Your task to perform on an android device: all mails in gmail Image 0: 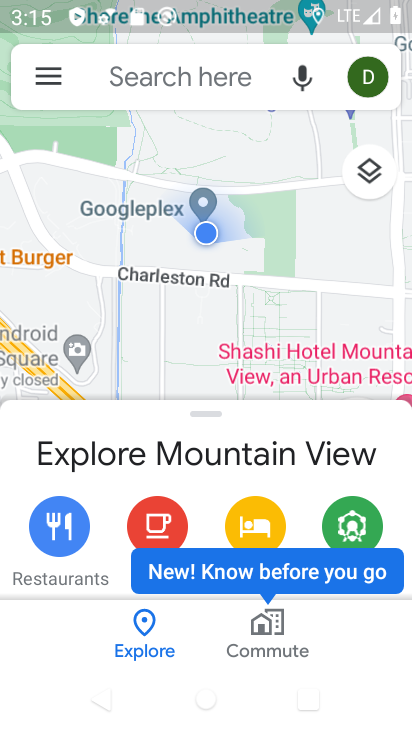
Step 0: press home button
Your task to perform on an android device: all mails in gmail Image 1: 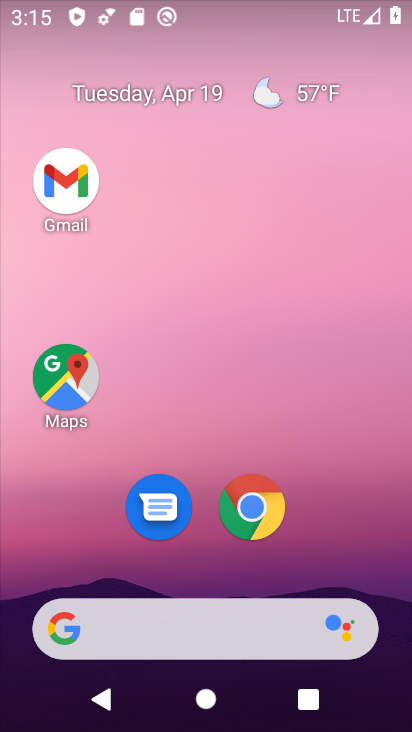
Step 1: click (239, 588)
Your task to perform on an android device: all mails in gmail Image 2: 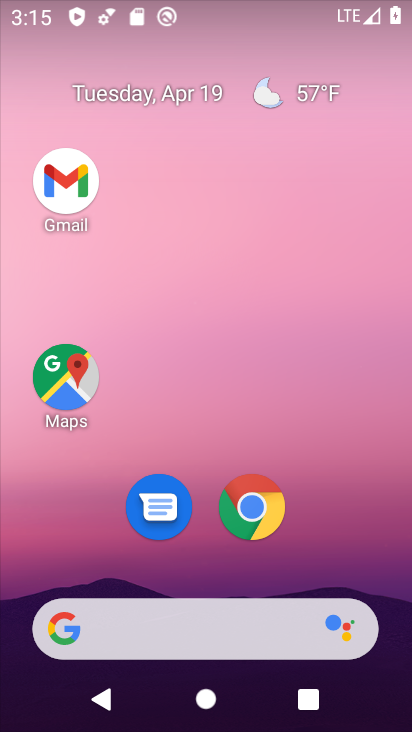
Step 2: click (75, 184)
Your task to perform on an android device: all mails in gmail Image 3: 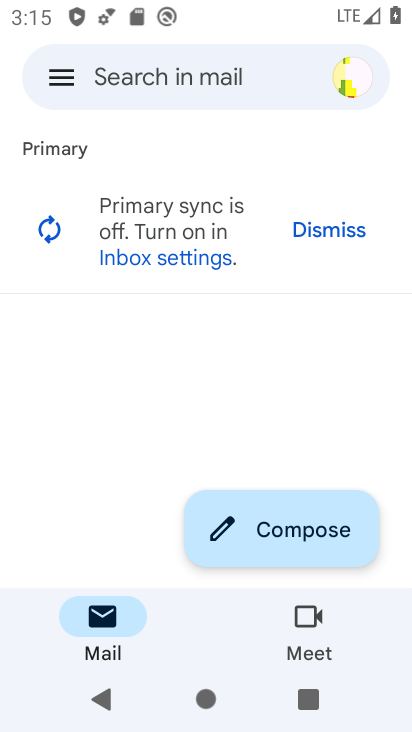
Step 3: click (47, 82)
Your task to perform on an android device: all mails in gmail Image 4: 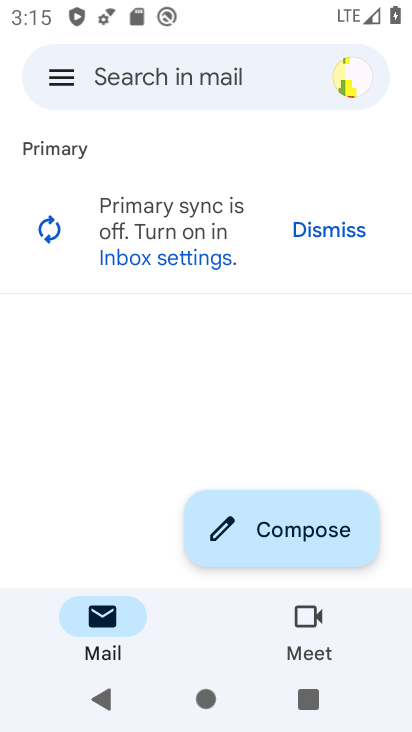
Step 4: click (73, 78)
Your task to perform on an android device: all mails in gmail Image 5: 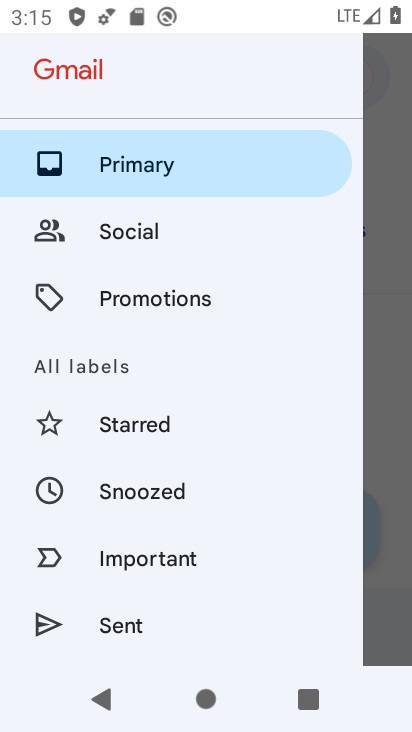
Step 5: drag from (195, 584) to (258, 203)
Your task to perform on an android device: all mails in gmail Image 6: 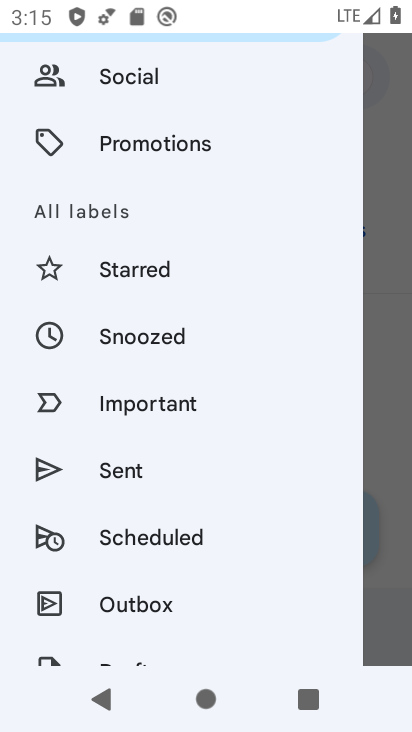
Step 6: drag from (255, 566) to (294, 188)
Your task to perform on an android device: all mails in gmail Image 7: 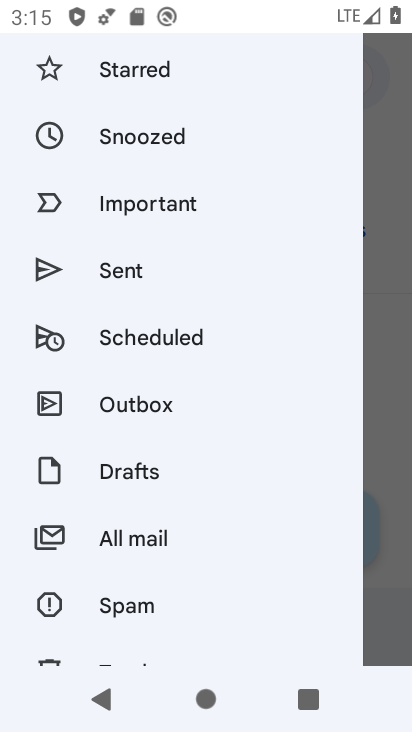
Step 7: click (118, 536)
Your task to perform on an android device: all mails in gmail Image 8: 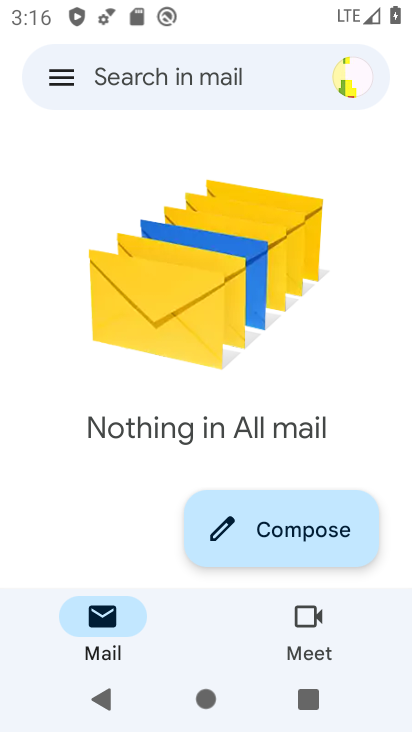
Step 8: task complete